Your task to perform on an android device: Open display settings Image 0: 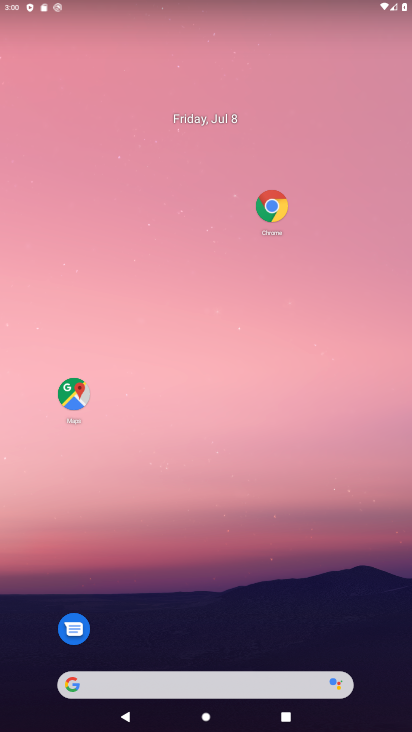
Step 0: drag from (235, 626) to (274, 61)
Your task to perform on an android device: Open display settings Image 1: 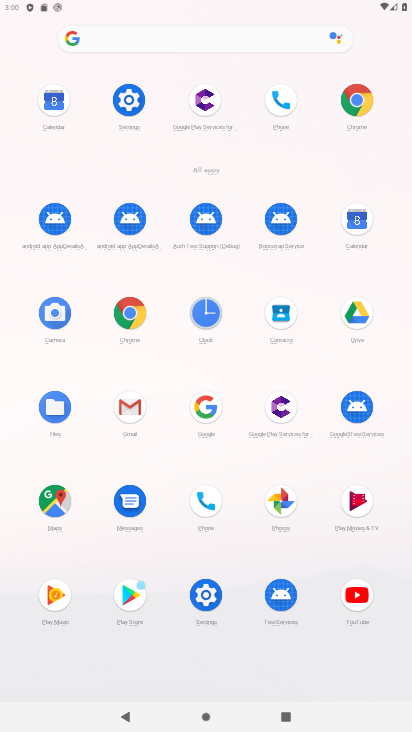
Step 1: click (204, 597)
Your task to perform on an android device: Open display settings Image 2: 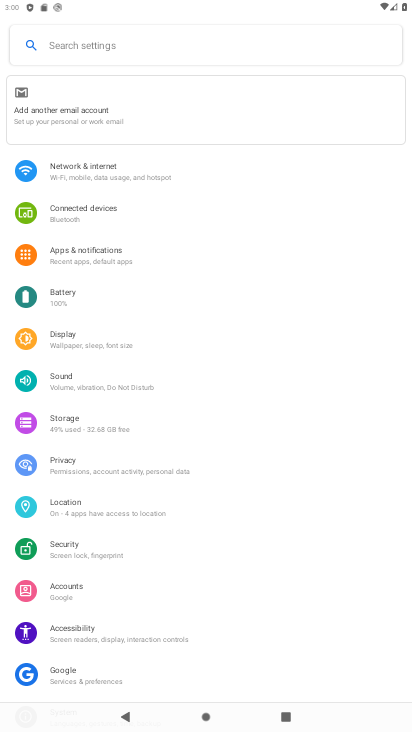
Step 2: click (124, 339)
Your task to perform on an android device: Open display settings Image 3: 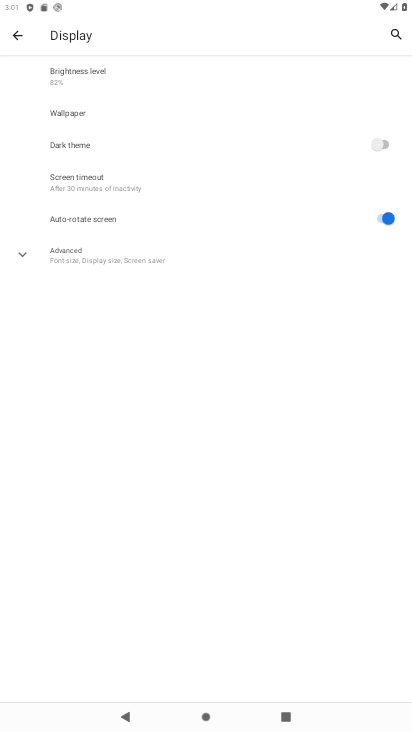
Step 3: task complete